Your task to perform on an android device: set an alarm Image 0: 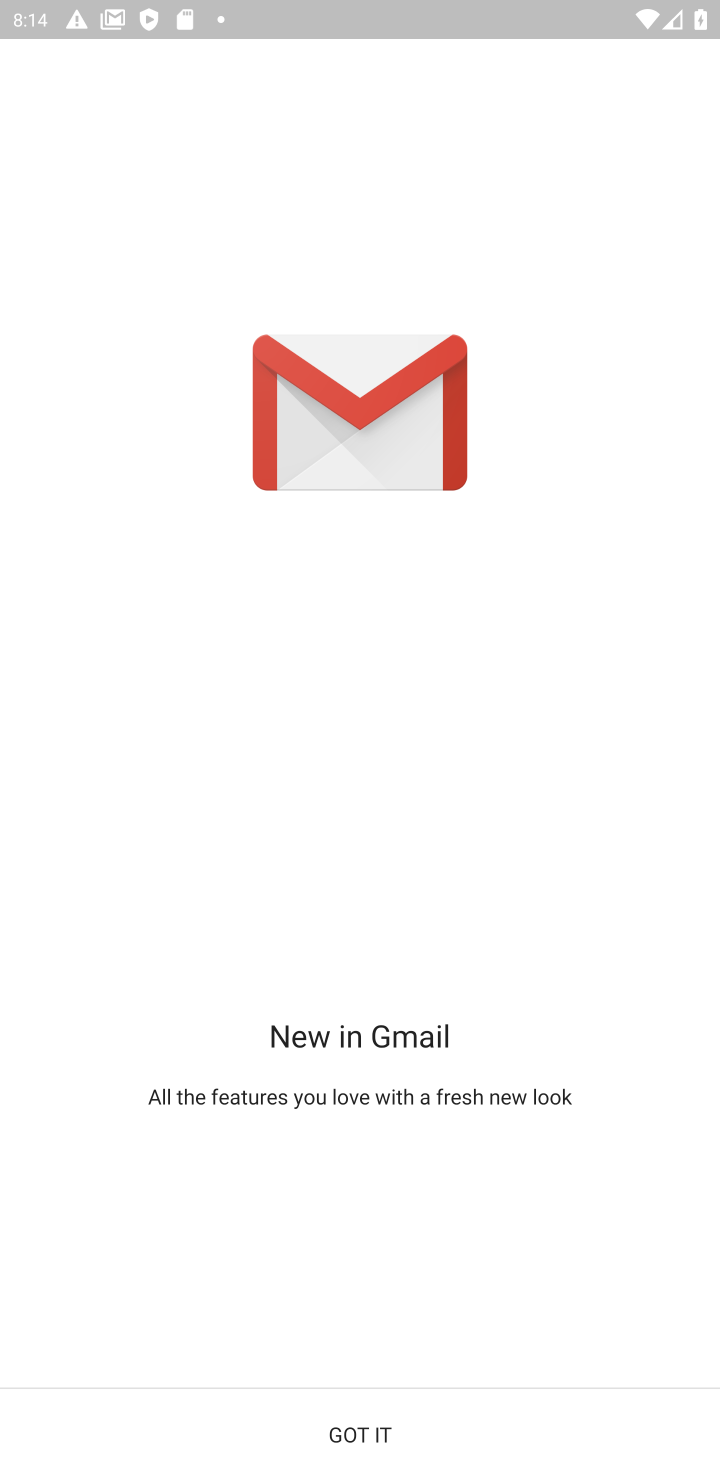
Step 0: press home button
Your task to perform on an android device: set an alarm Image 1: 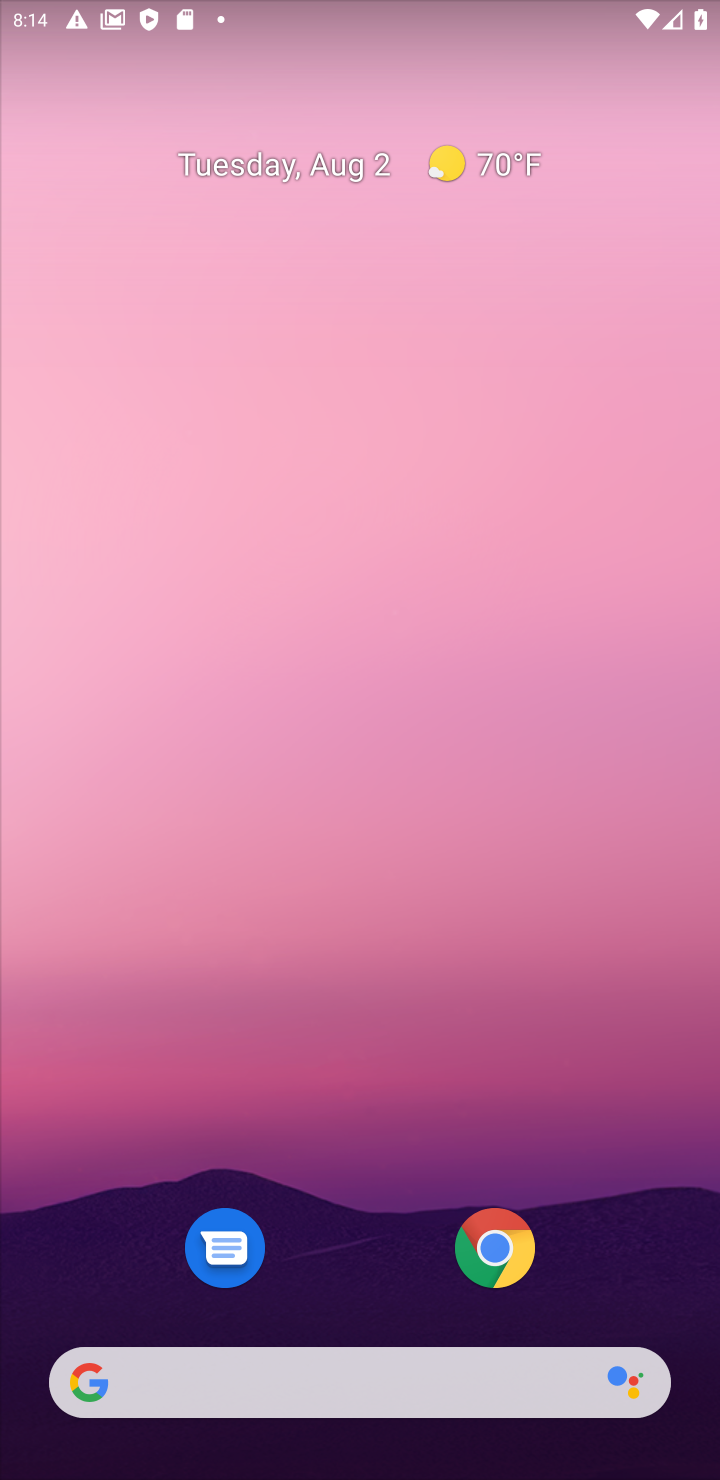
Step 1: drag from (403, 1107) to (475, 57)
Your task to perform on an android device: set an alarm Image 2: 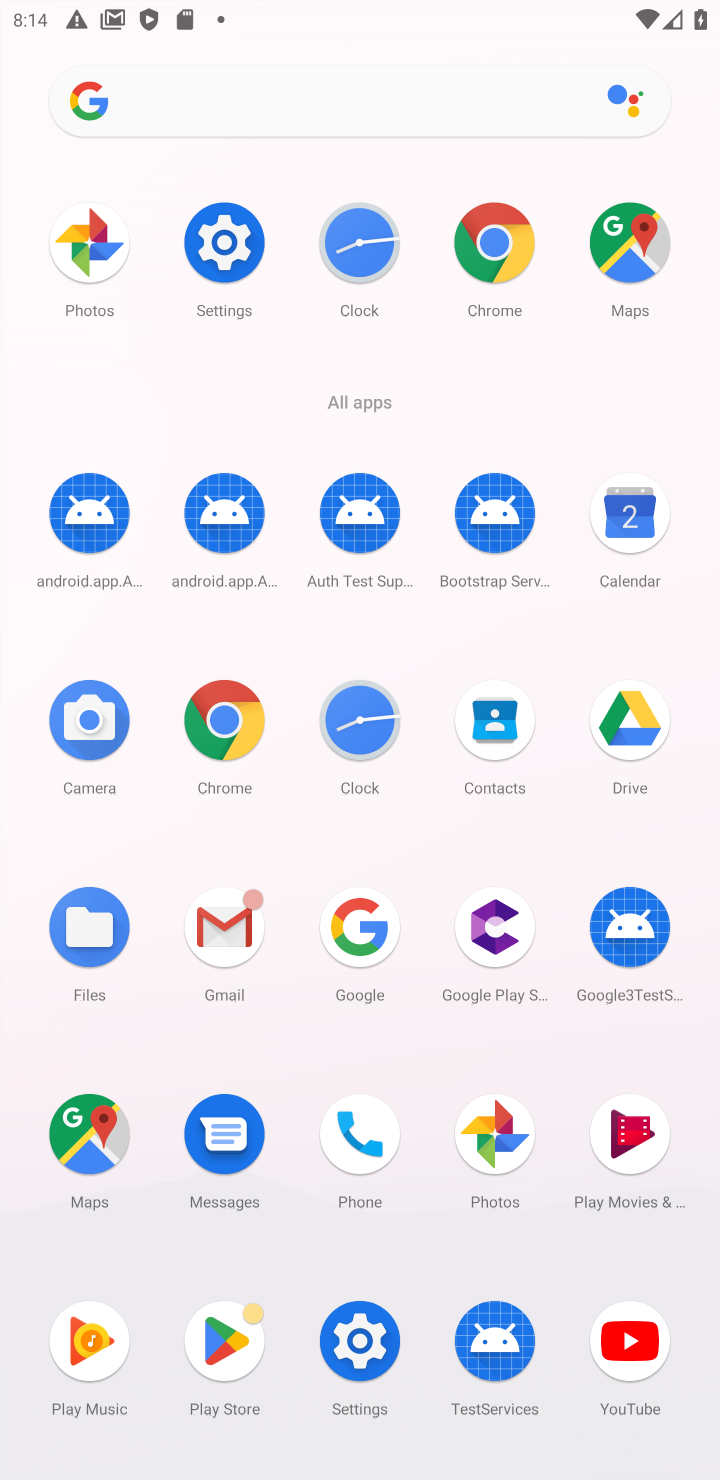
Step 2: click (356, 717)
Your task to perform on an android device: set an alarm Image 3: 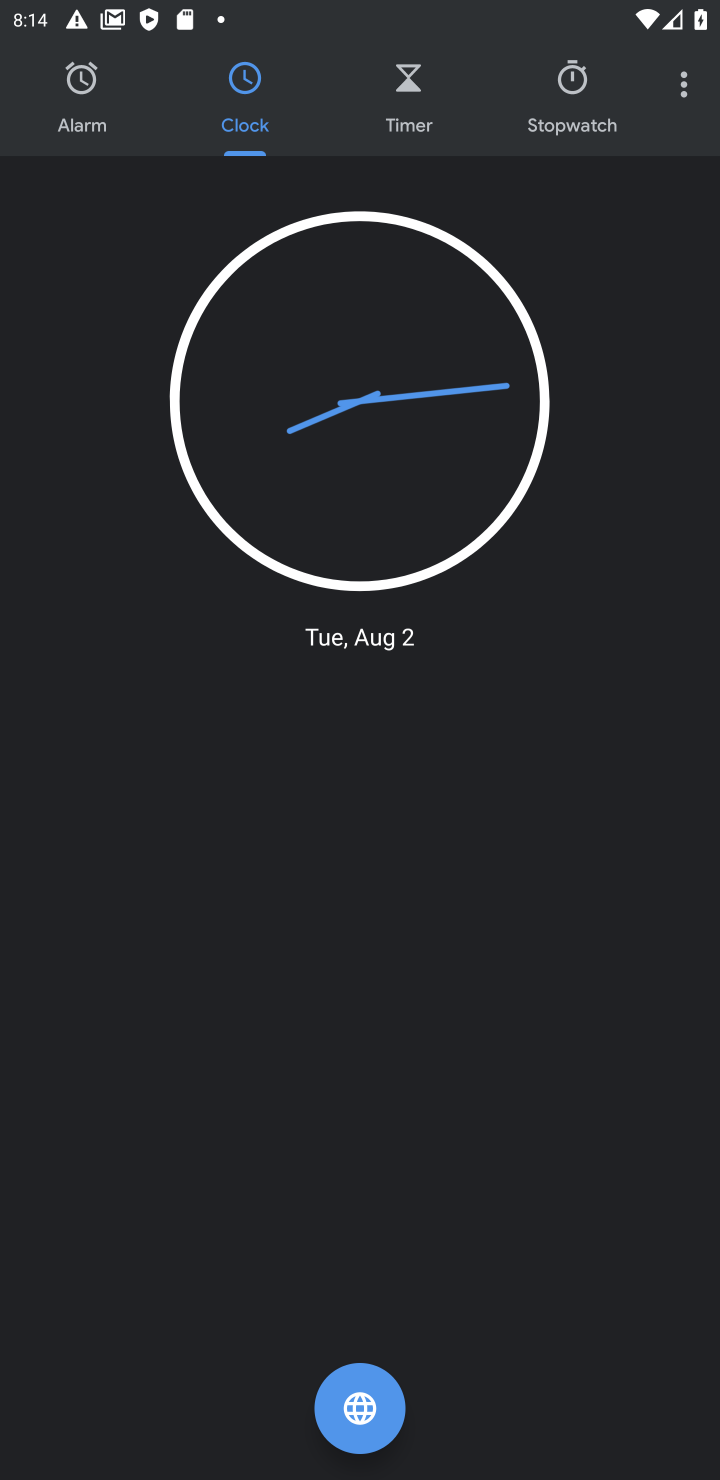
Step 3: click (82, 103)
Your task to perform on an android device: set an alarm Image 4: 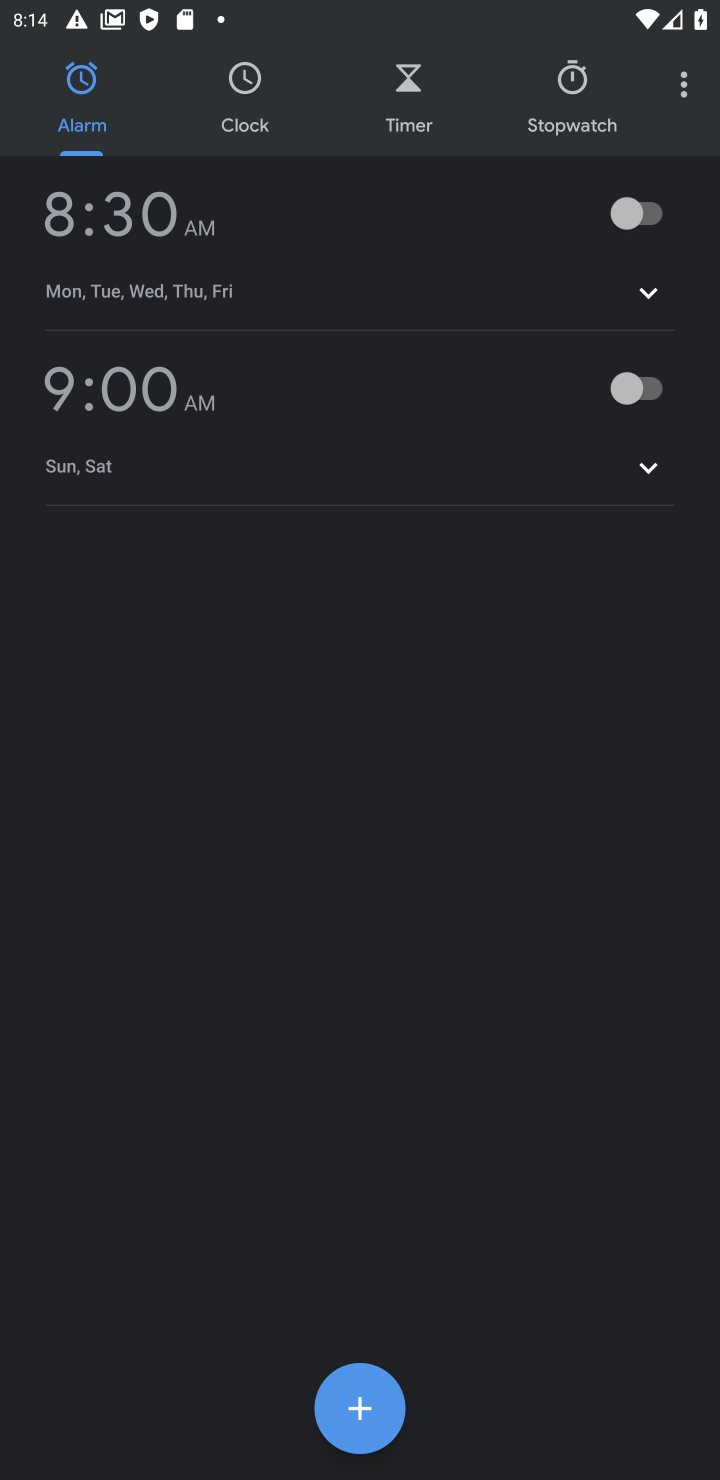
Step 4: click (208, 227)
Your task to perform on an android device: set an alarm Image 5: 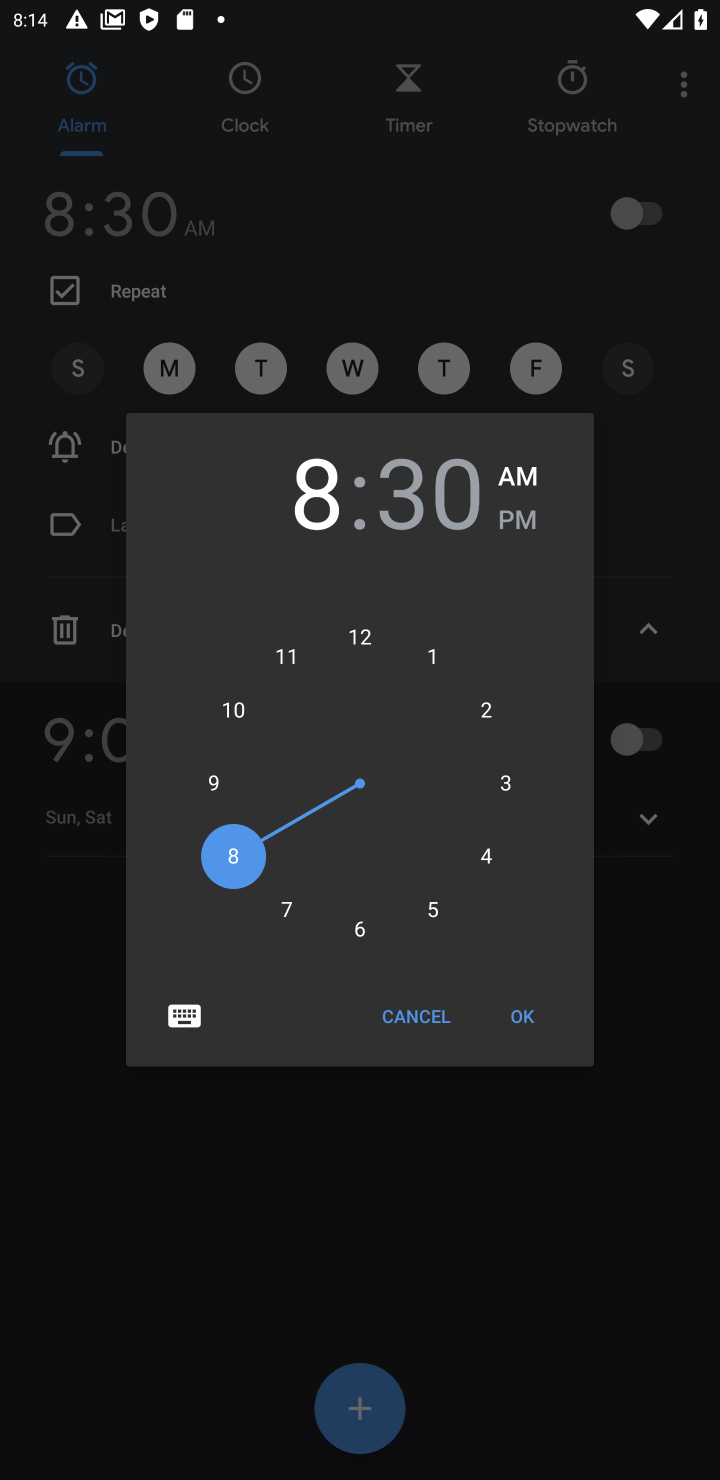
Step 5: click (289, 909)
Your task to perform on an android device: set an alarm Image 6: 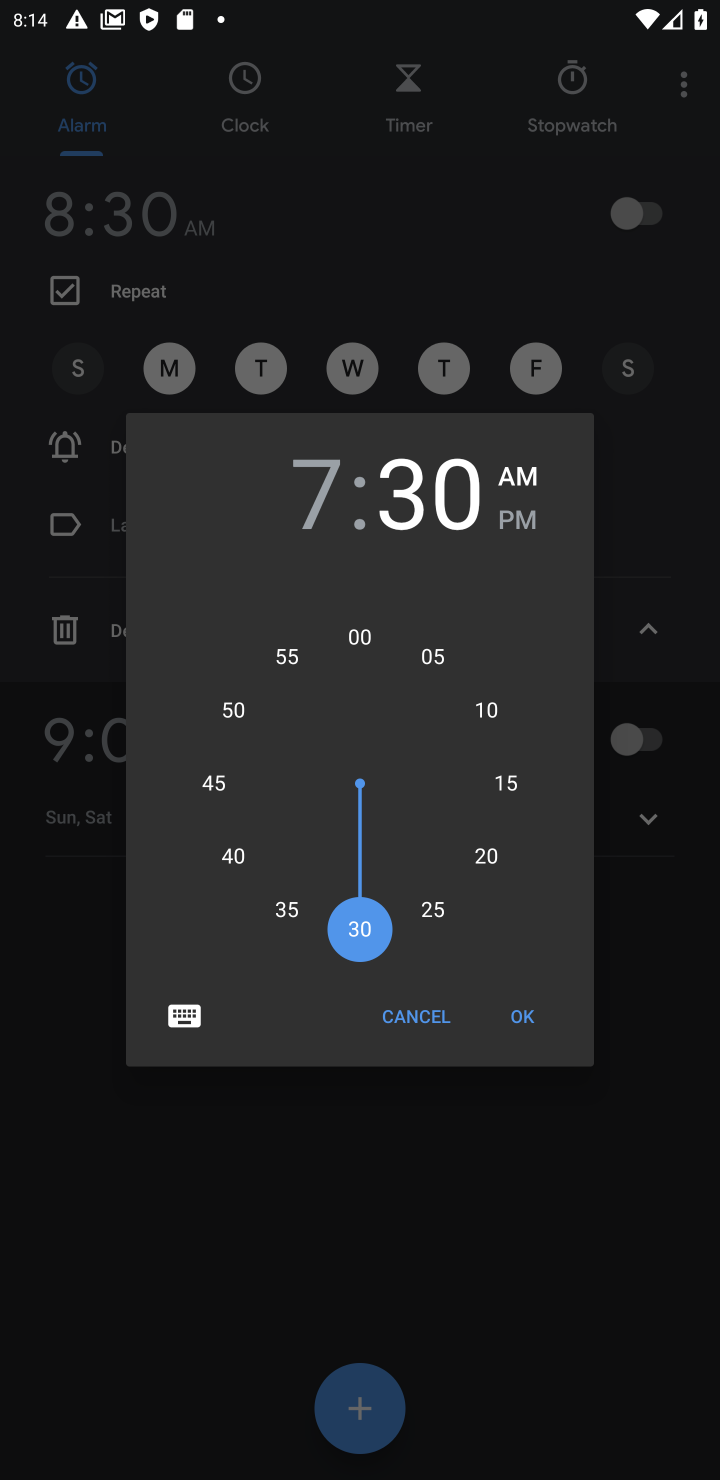
Step 6: click (350, 916)
Your task to perform on an android device: set an alarm Image 7: 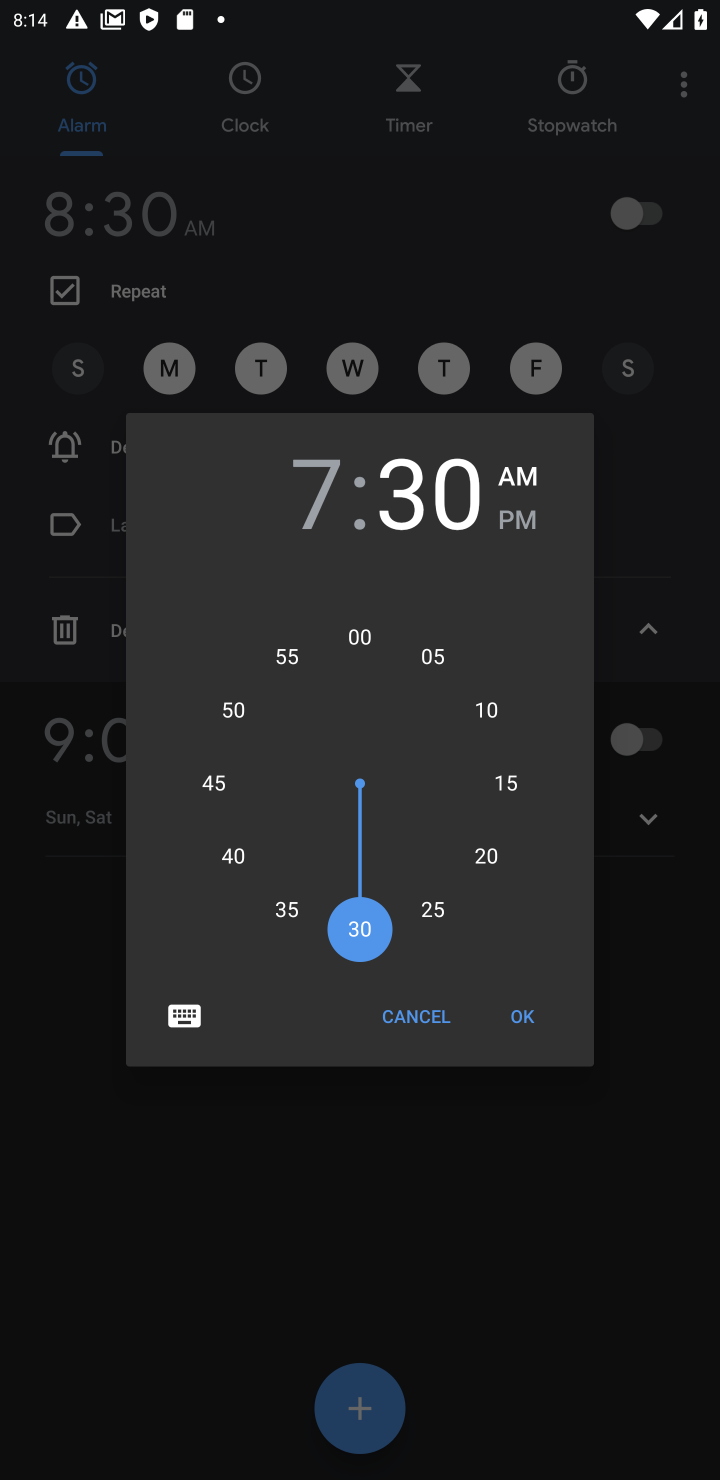
Step 7: click (517, 1013)
Your task to perform on an android device: set an alarm Image 8: 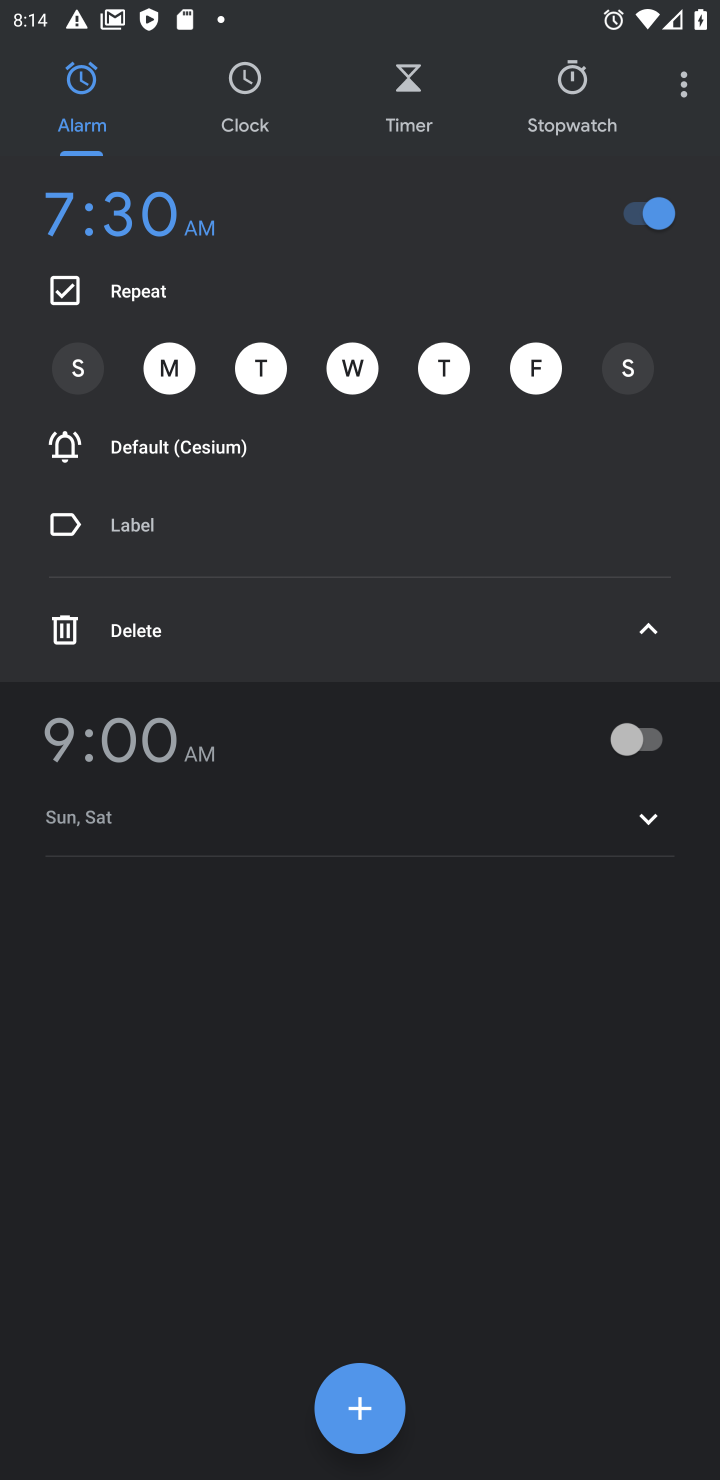
Step 8: task complete